Your task to perform on an android device: manage bookmarks in the chrome app Image 0: 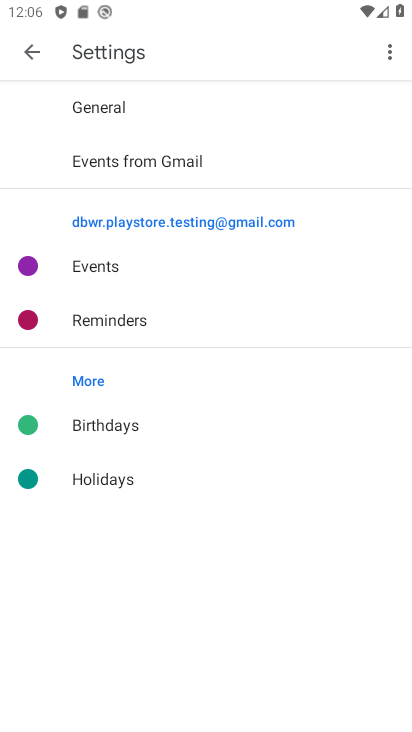
Step 0: press home button
Your task to perform on an android device: manage bookmarks in the chrome app Image 1: 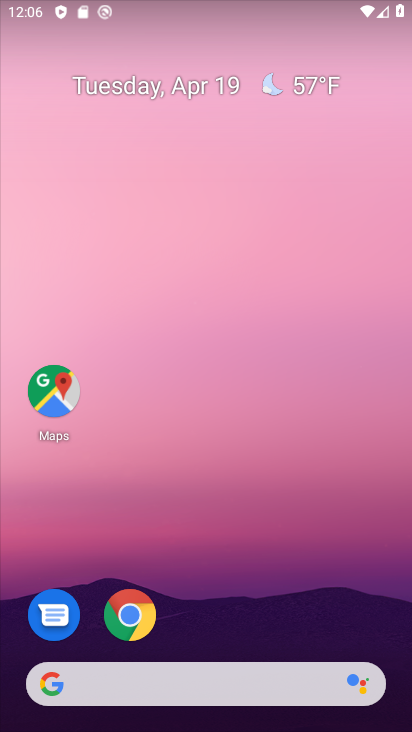
Step 1: click (136, 612)
Your task to perform on an android device: manage bookmarks in the chrome app Image 2: 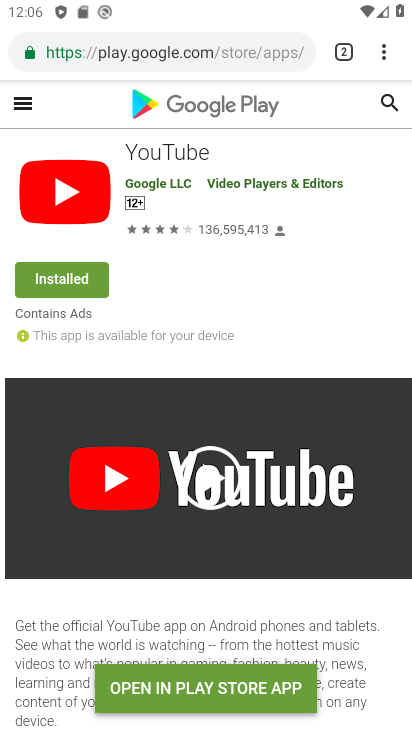
Step 2: click (382, 49)
Your task to perform on an android device: manage bookmarks in the chrome app Image 3: 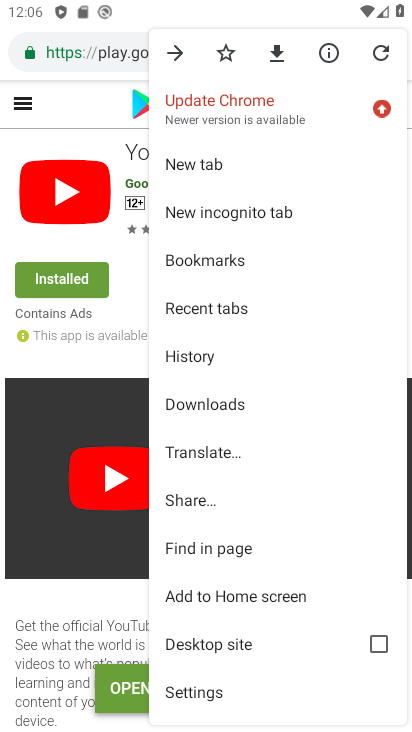
Step 3: click (231, 265)
Your task to perform on an android device: manage bookmarks in the chrome app Image 4: 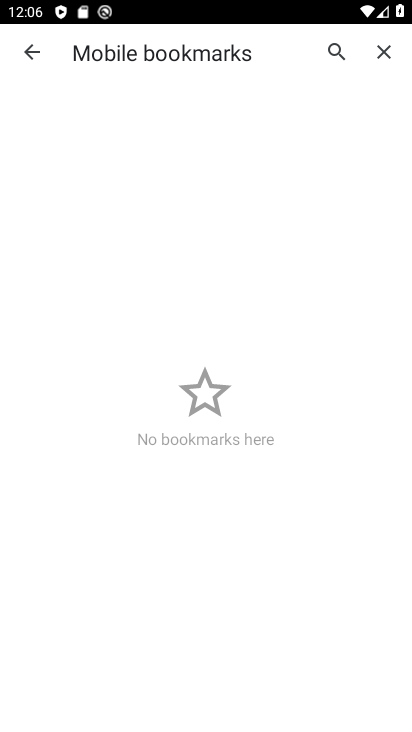
Step 4: task complete